Your task to perform on an android device: change keyboard looks Image 0: 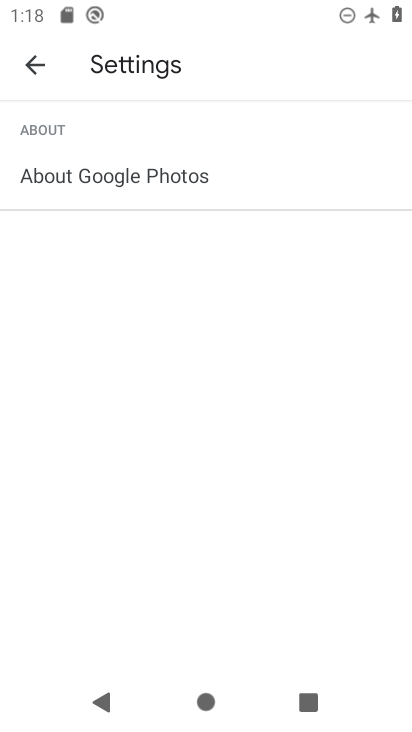
Step 0: press home button
Your task to perform on an android device: change keyboard looks Image 1: 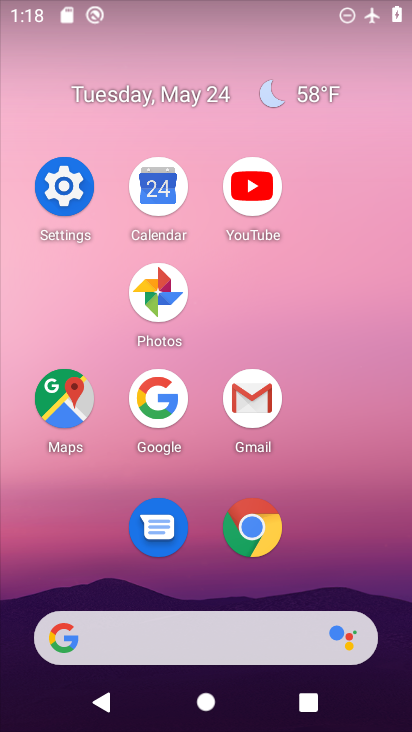
Step 1: click (67, 183)
Your task to perform on an android device: change keyboard looks Image 2: 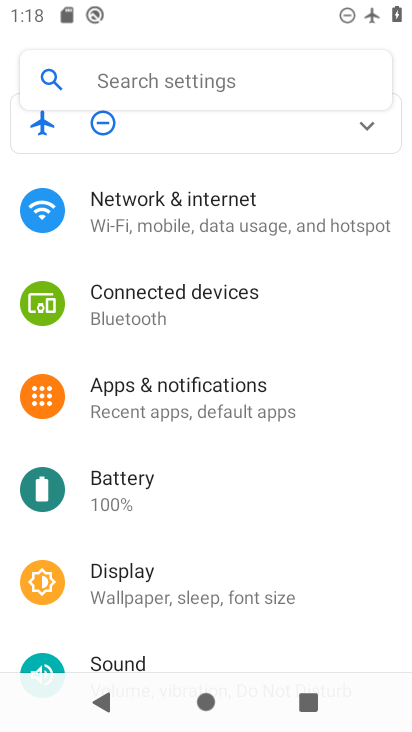
Step 2: drag from (223, 560) to (242, 134)
Your task to perform on an android device: change keyboard looks Image 3: 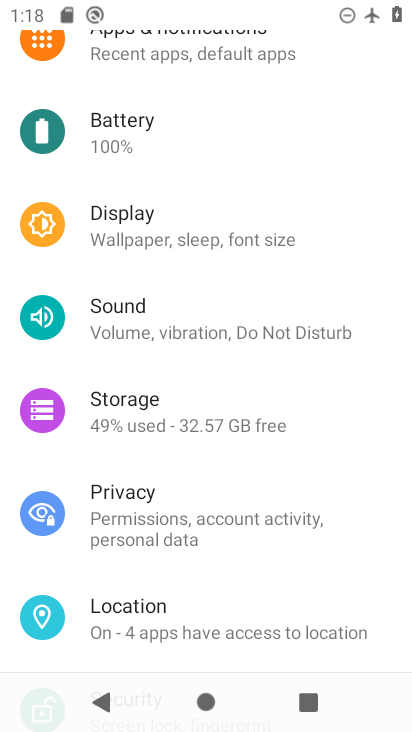
Step 3: drag from (283, 591) to (241, 127)
Your task to perform on an android device: change keyboard looks Image 4: 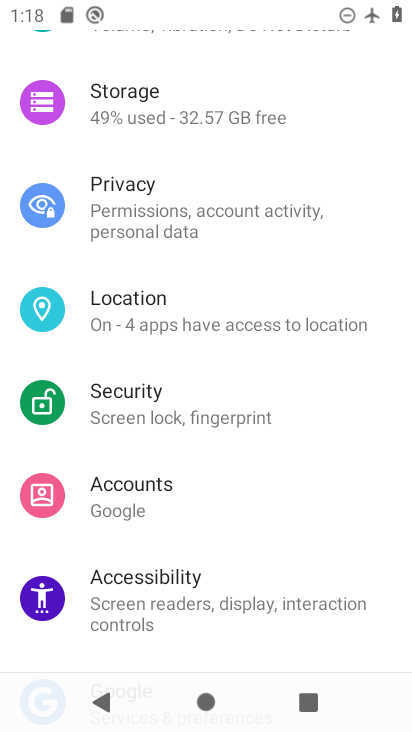
Step 4: drag from (264, 586) to (202, 110)
Your task to perform on an android device: change keyboard looks Image 5: 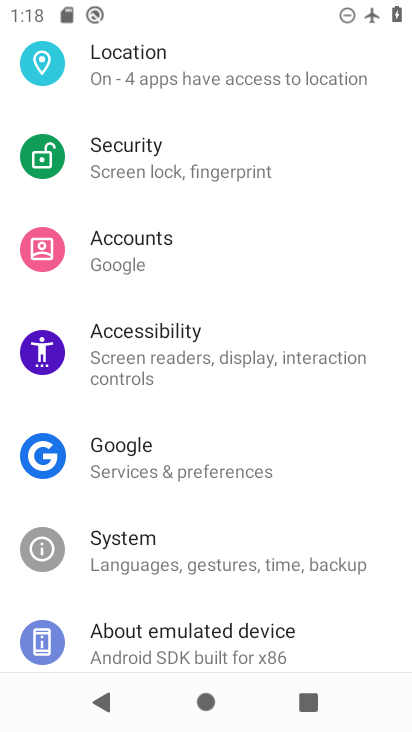
Step 5: click (172, 570)
Your task to perform on an android device: change keyboard looks Image 6: 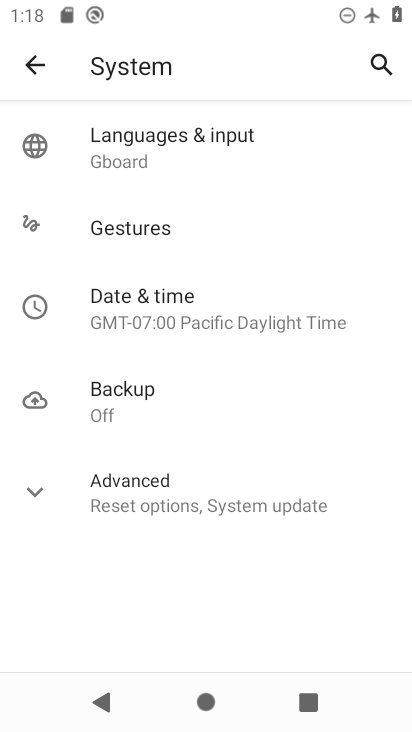
Step 6: click (174, 130)
Your task to perform on an android device: change keyboard looks Image 7: 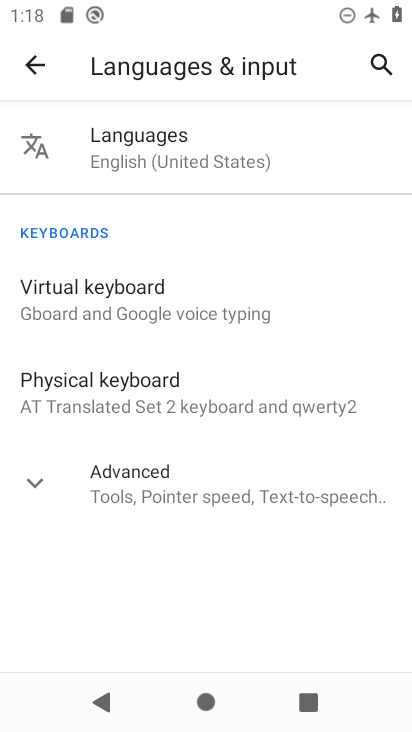
Step 7: click (187, 275)
Your task to perform on an android device: change keyboard looks Image 8: 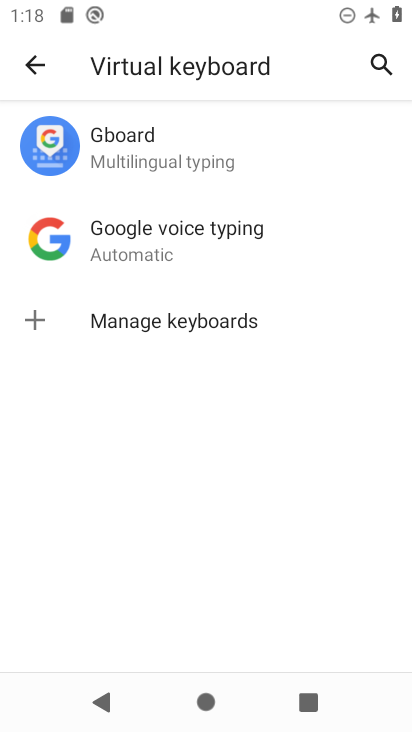
Step 8: click (179, 148)
Your task to perform on an android device: change keyboard looks Image 9: 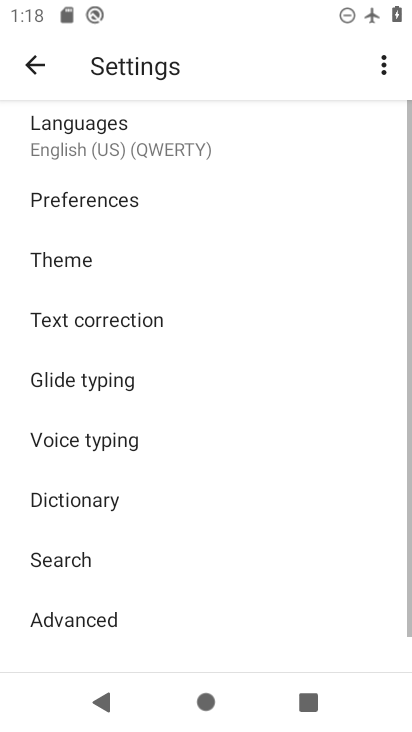
Step 9: click (83, 260)
Your task to perform on an android device: change keyboard looks Image 10: 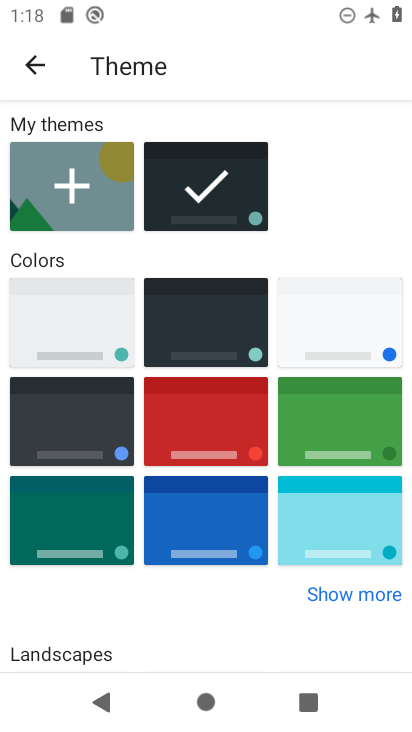
Step 10: click (236, 354)
Your task to perform on an android device: change keyboard looks Image 11: 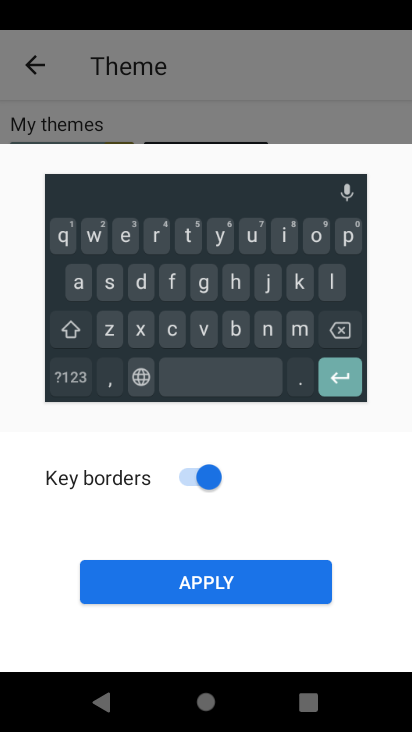
Step 11: click (231, 577)
Your task to perform on an android device: change keyboard looks Image 12: 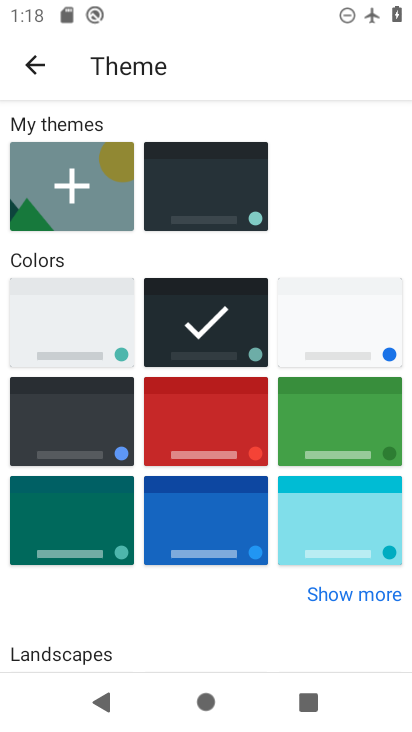
Step 12: task complete